Your task to perform on an android device: Do I have any events today? Image 0: 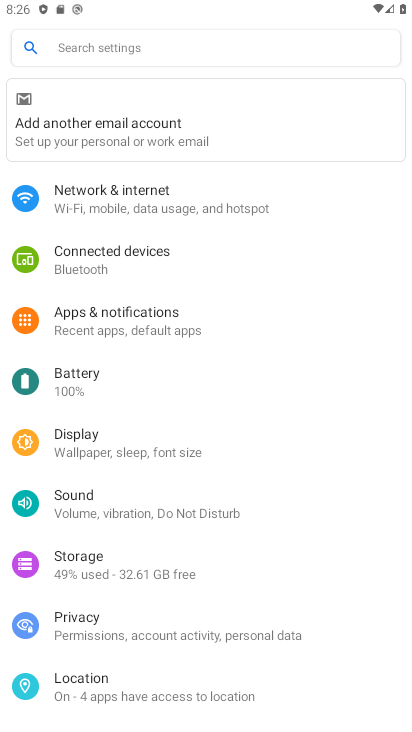
Step 0: press home button
Your task to perform on an android device: Do I have any events today? Image 1: 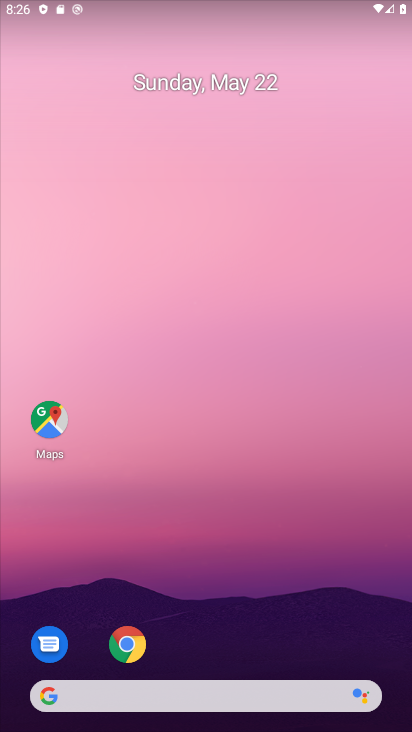
Step 1: drag from (206, 695) to (198, 73)
Your task to perform on an android device: Do I have any events today? Image 2: 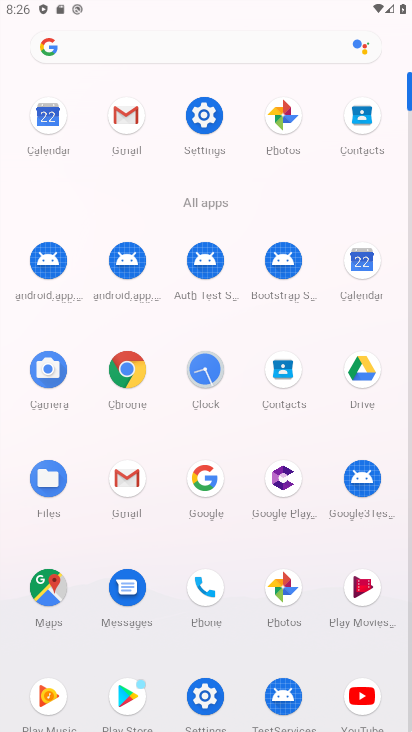
Step 2: click (364, 263)
Your task to perform on an android device: Do I have any events today? Image 3: 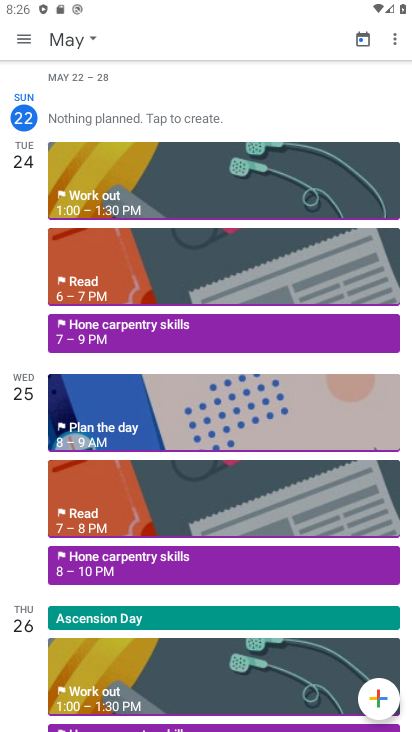
Step 3: task complete